Your task to perform on an android device: Clear the cart on walmart.com. Image 0: 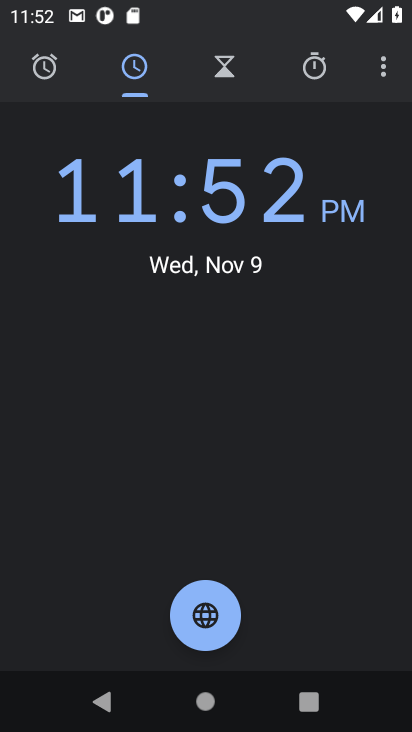
Step 0: press home button
Your task to perform on an android device: Clear the cart on walmart.com. Image 1: 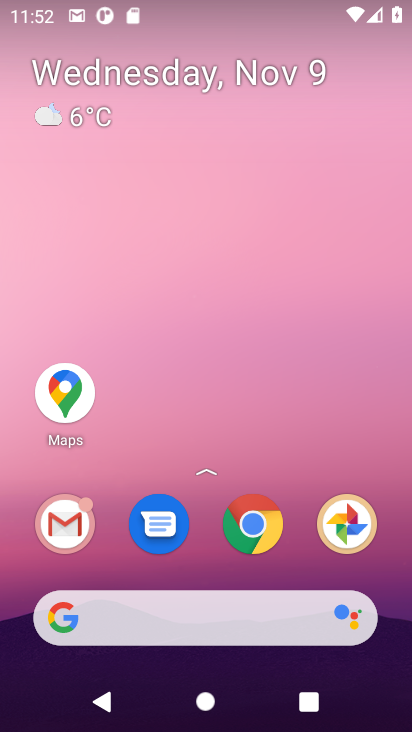
Step 1: click (243, 530)
Your task to perform on an android device: Clear the cart on walmart.com. Image 2: 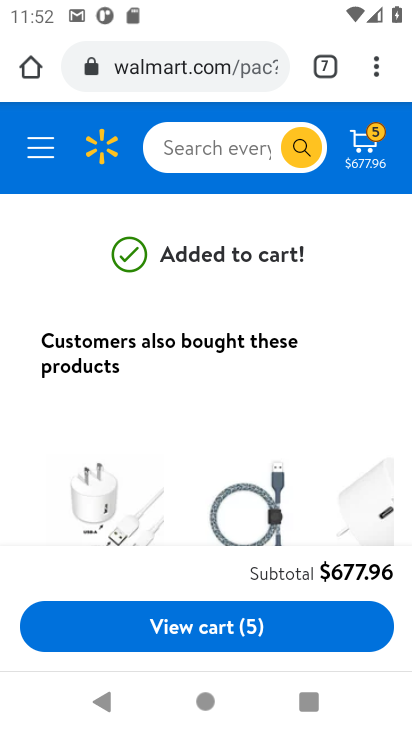
Step 2: click (355, 148)
Your task to perform on an android device: Clear the cart on walmart.com. Image 3: 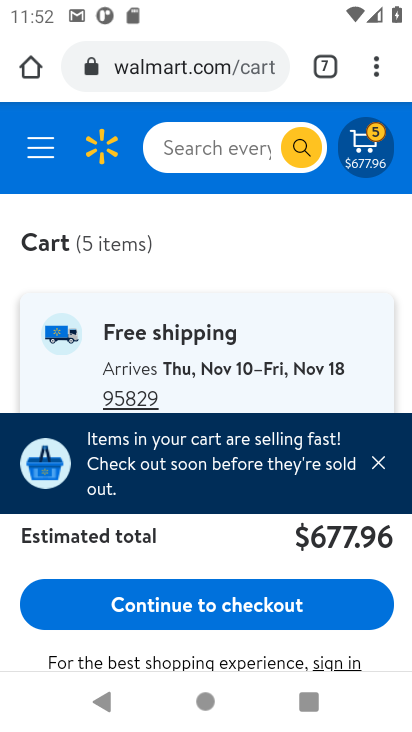
Step 3: click (379, 464)
Your task to perform on an android device: Clear the cart on walmart.com. Image 4: 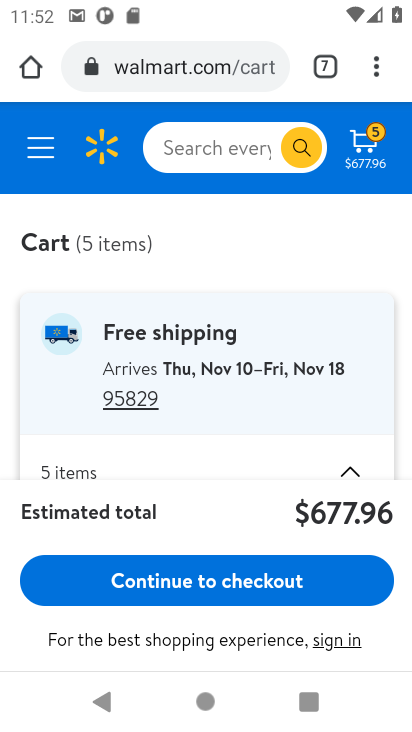
Step 4: drag from (129, 450) to (242, 264)
Your task to perform on an android device: Clear the cart on walmart.com. Image 5: 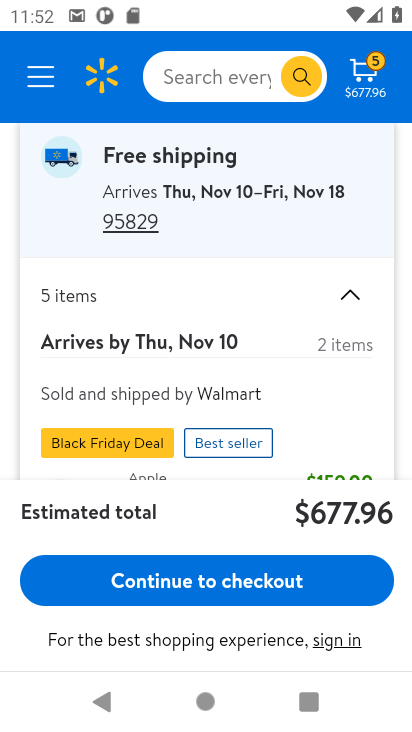
Step 5: drag from (183, 328) to (254, 163)
Your task to perform on an android device: Clear the cart on walmart.com. Image 6: 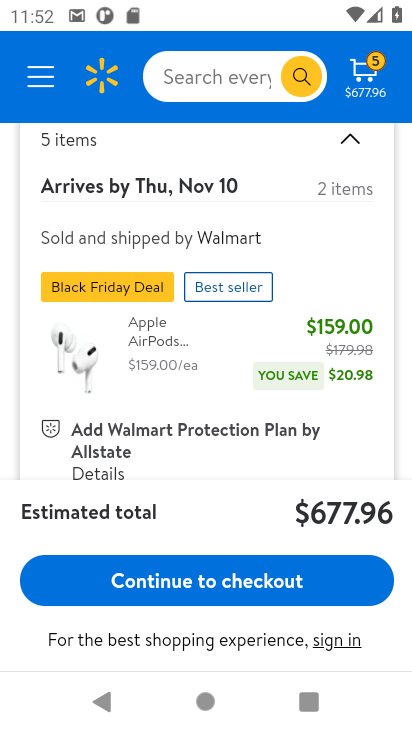
Step 6: drag from (209, 357) to (302, 130)
Your task to perform on an android device: Clear the cart on walmart.com. Image 7: 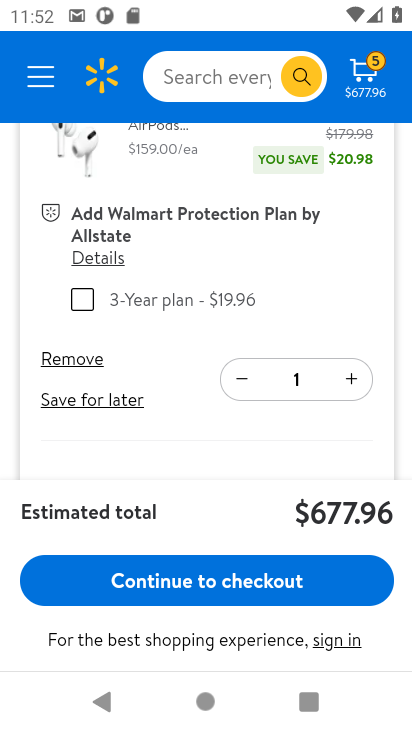
Step 7: click (85, 361)
Your task to perform on an android device: Clear the cart on walmart.com. Image 8: 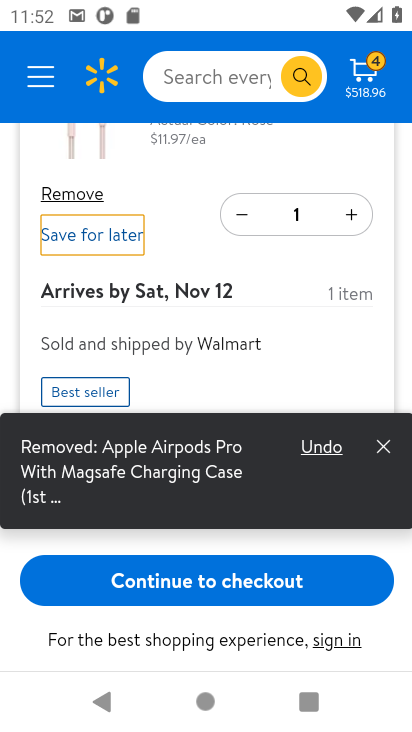
Step 8: click (69, 193)
Your task to perform on an android device: Clear the cart on walmart.com. Image 9: 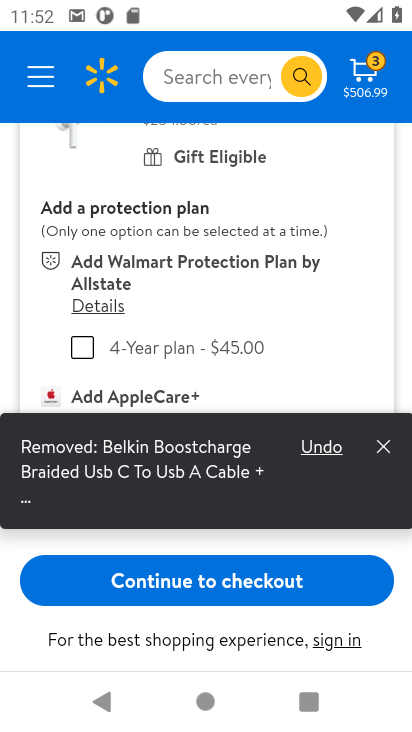
Step 9: drag from (148, 317) to (185, 148)
Your task to perform on an android device: Clear the cart on walmart.com. Image 10: 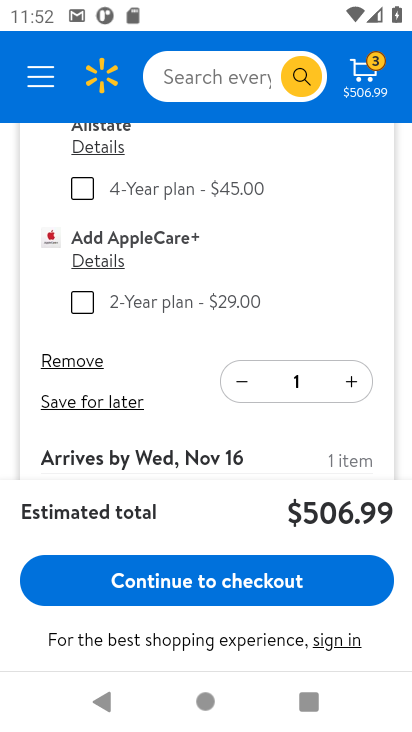
Step 10: click (88, 359)
Your task to perform on an android device: Clear the cart on walmart.com. Image 11: 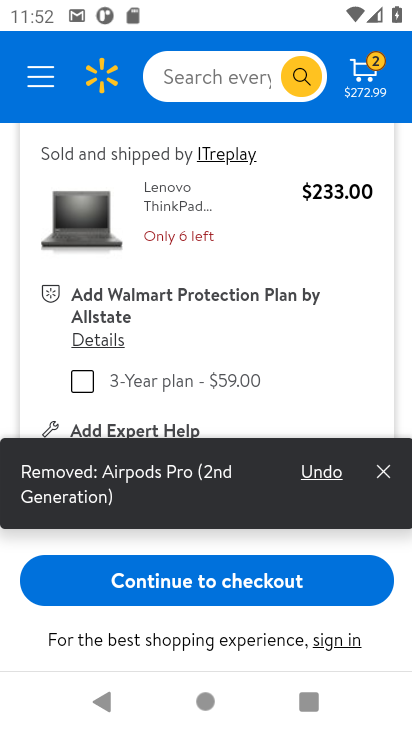
Step 11: drag from (166, 360) to (204, 180)
Your task to perform on an android device: Clear the cart on walmart.com. Image 12: 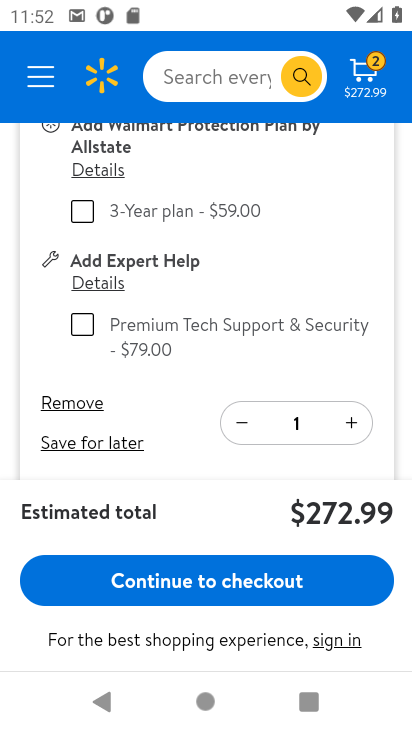
Step 12: click (70, 397)
Your task to perform on an android device: Clear the cart on walmart.com. Image 13: 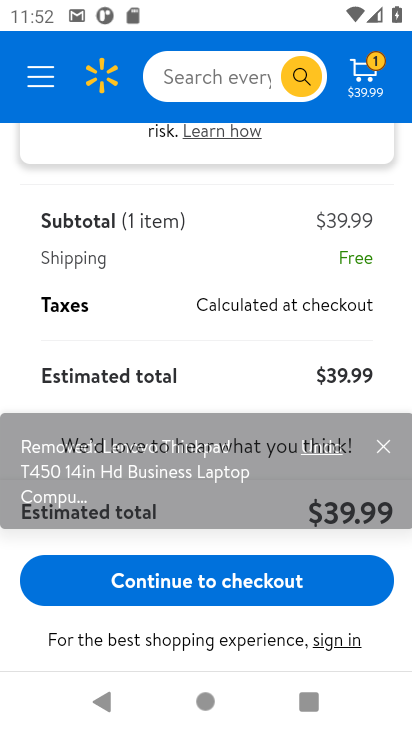
Step 13: drag from (198, 228) to (162, 404)
Your task to perform on an android device: Clear the cart on walmart.com. Image 14: 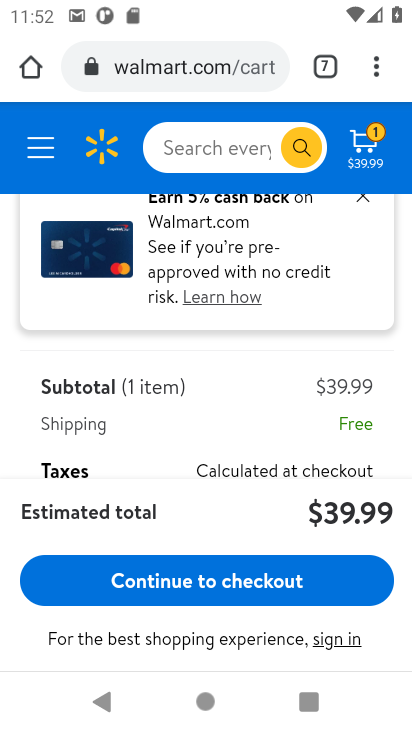
Step 14: drag from (144, 221) to (142, 436)
Your task to perform on an android device: Clear the cart on walmart.com. Image 15: 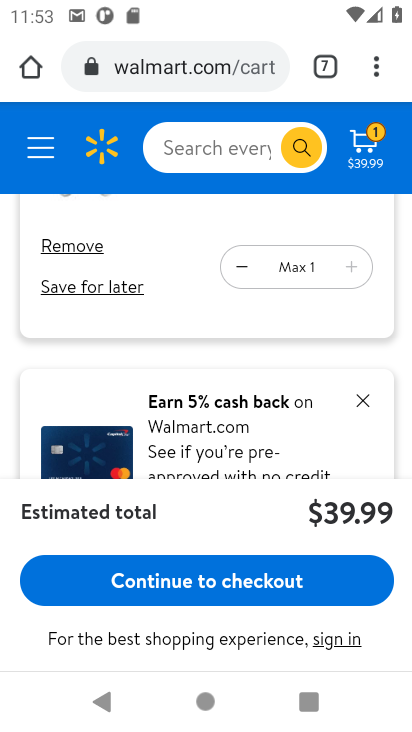
Step 15: click (87, 245)
Your task to perform on an android device: Clear the cart on walmart.com. Image 16: 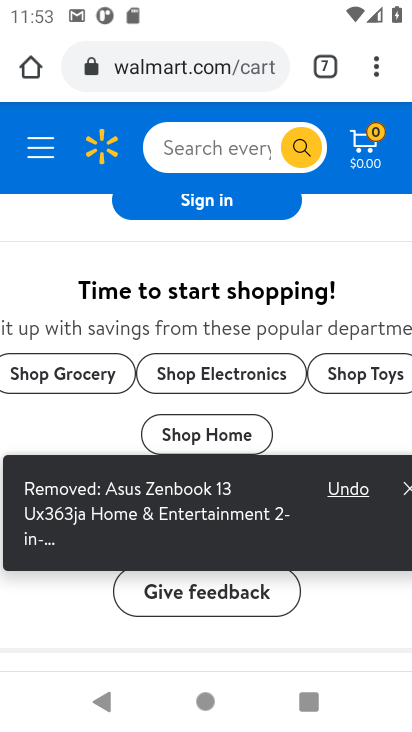
Step 16: task complete